Your task to perform on an android device: open app "Viber Messenger" (install if not already installed) and go to login screen Image 0: 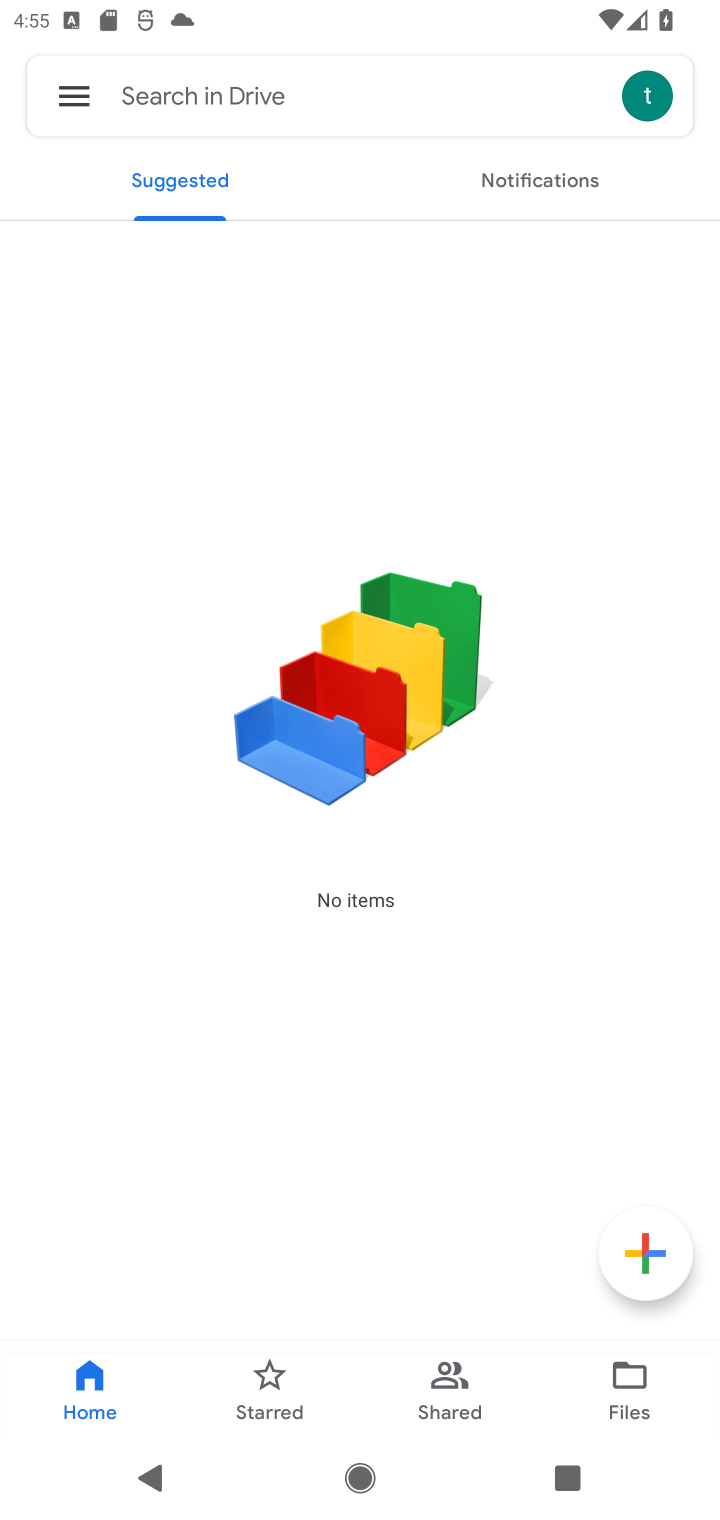
Step 0: press home button
Your task to perform on an android device: open app "Viber Messenger" (install if not already installed) and go to login screen Image 1: 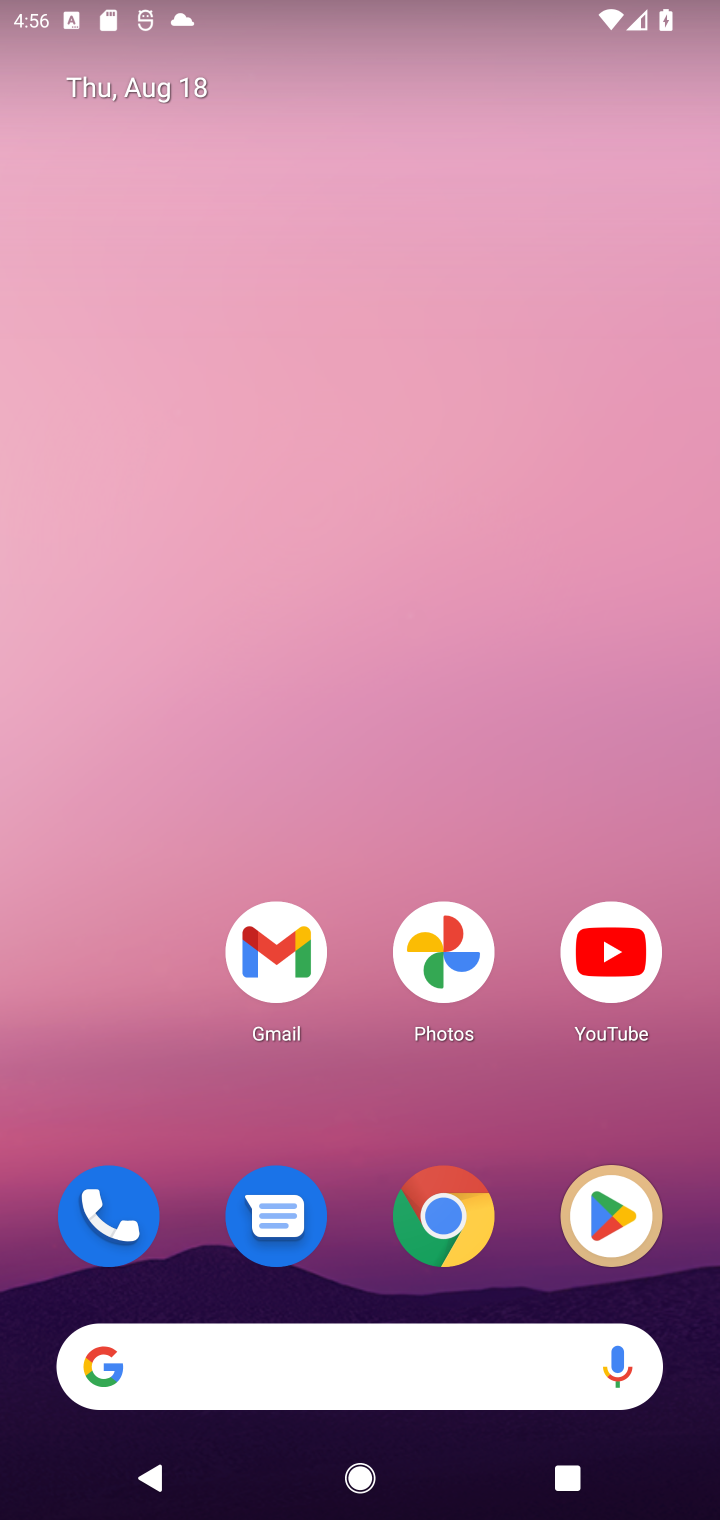
Step 1: click (581, 1201)
Your task to perform on an android device: open app "Viber Messenger" (install if not already installed) and go to login screen Image 2: 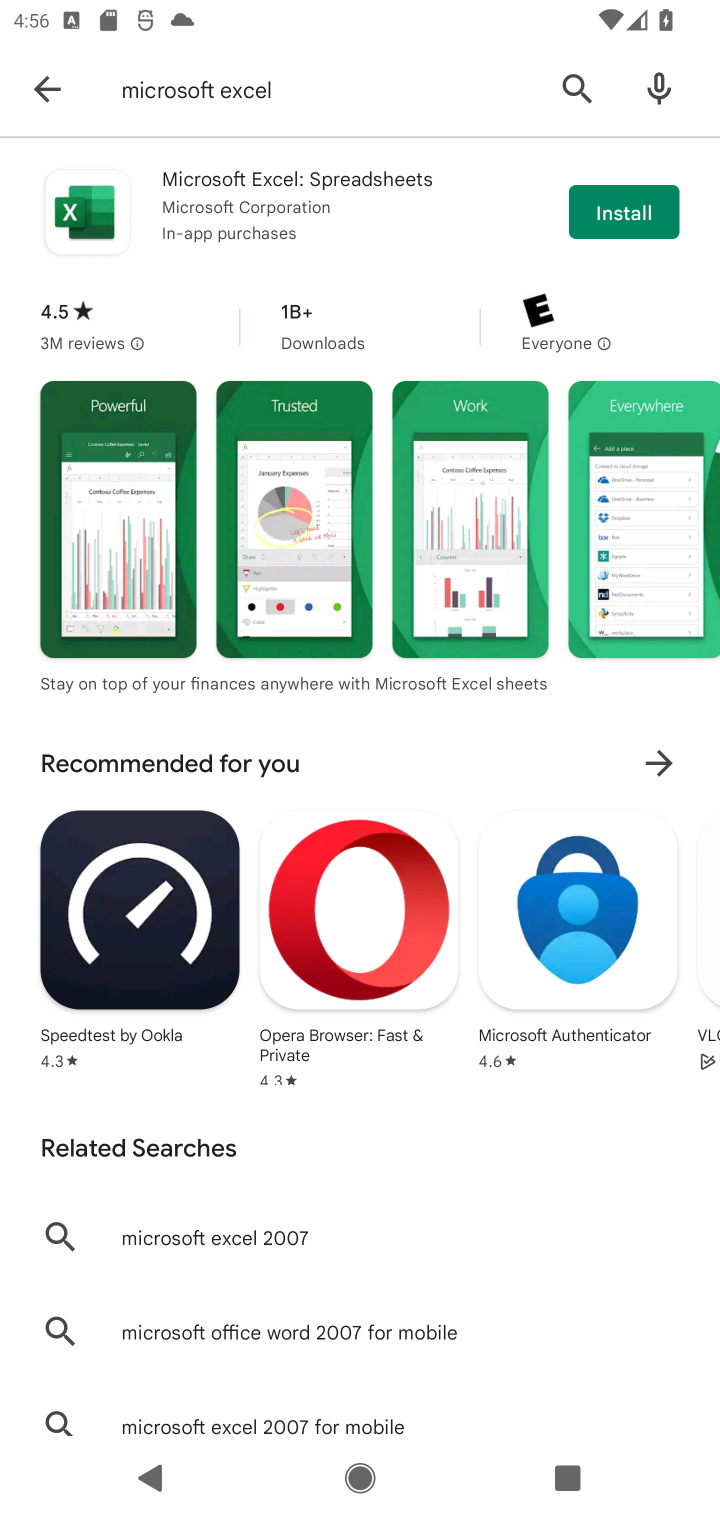
Step 2: click (570, 95)
Your task to perform on an android device: open app "Viber Messenger" (install if not already installed) and go to login screen Image 3: 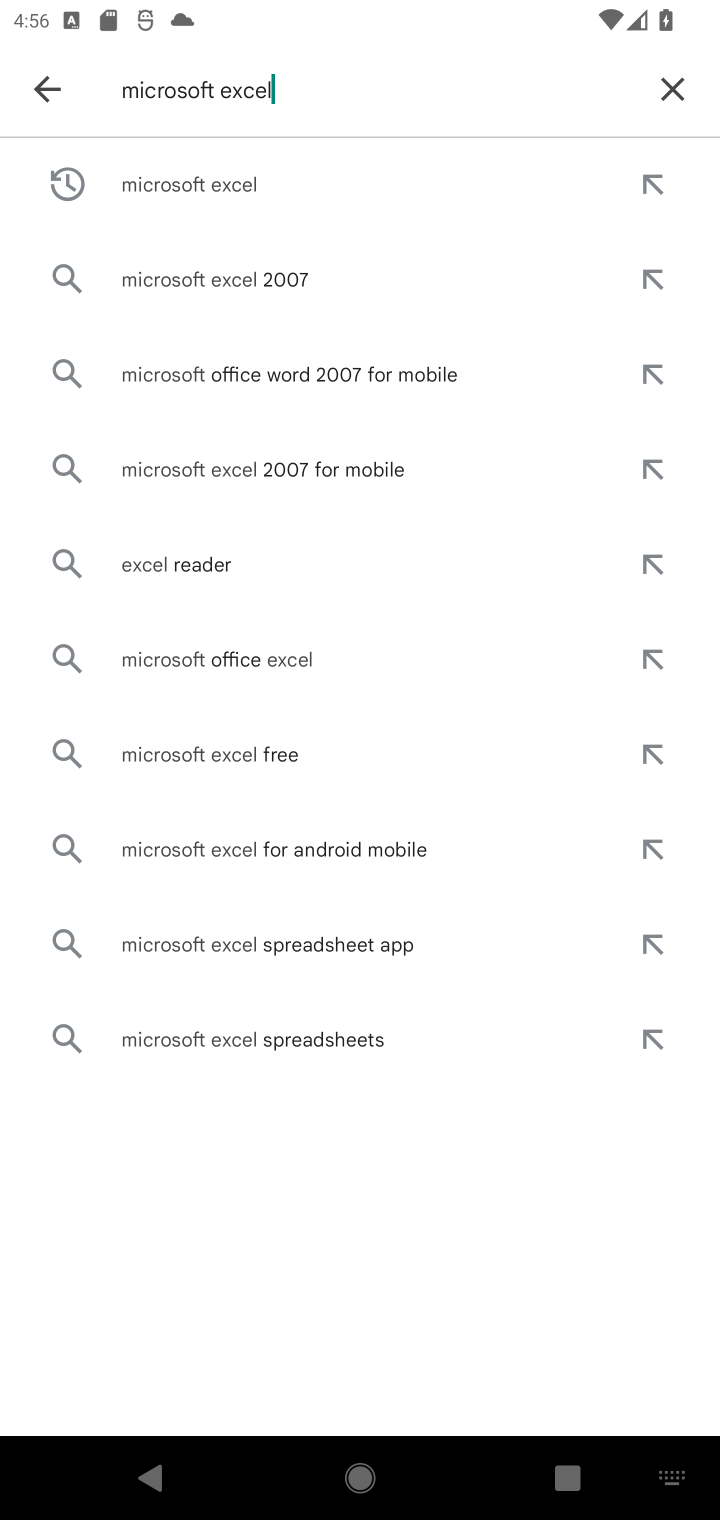
Step 3: click (675, 61)
Your task to perform on an android device: open app "Viber Messenger" (install if not already installed) and go to login screen Image 4: 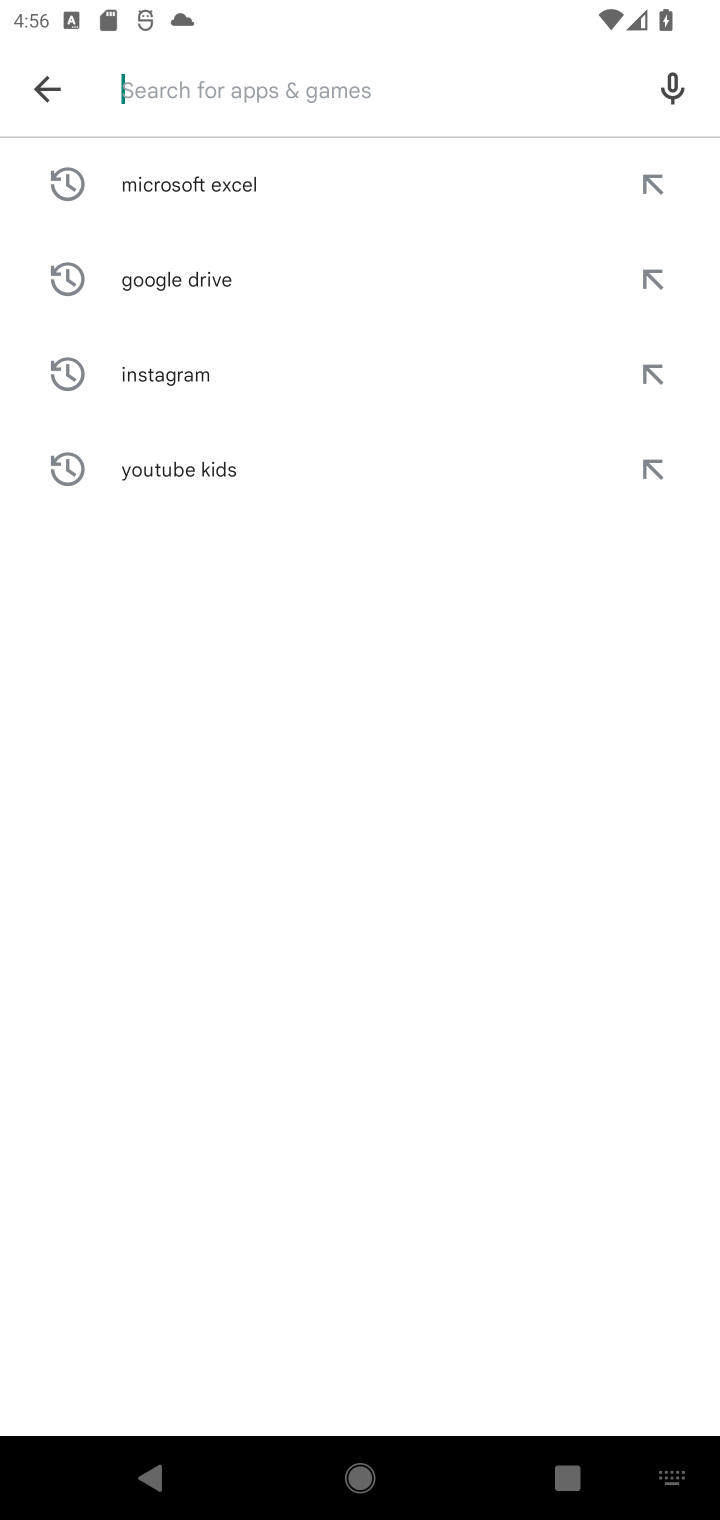
Step 4: type "Viber Messenger"
Your task to perform on an android device: open app "Viber Messenger" (install if not already installed) and go to login screen Image 5: 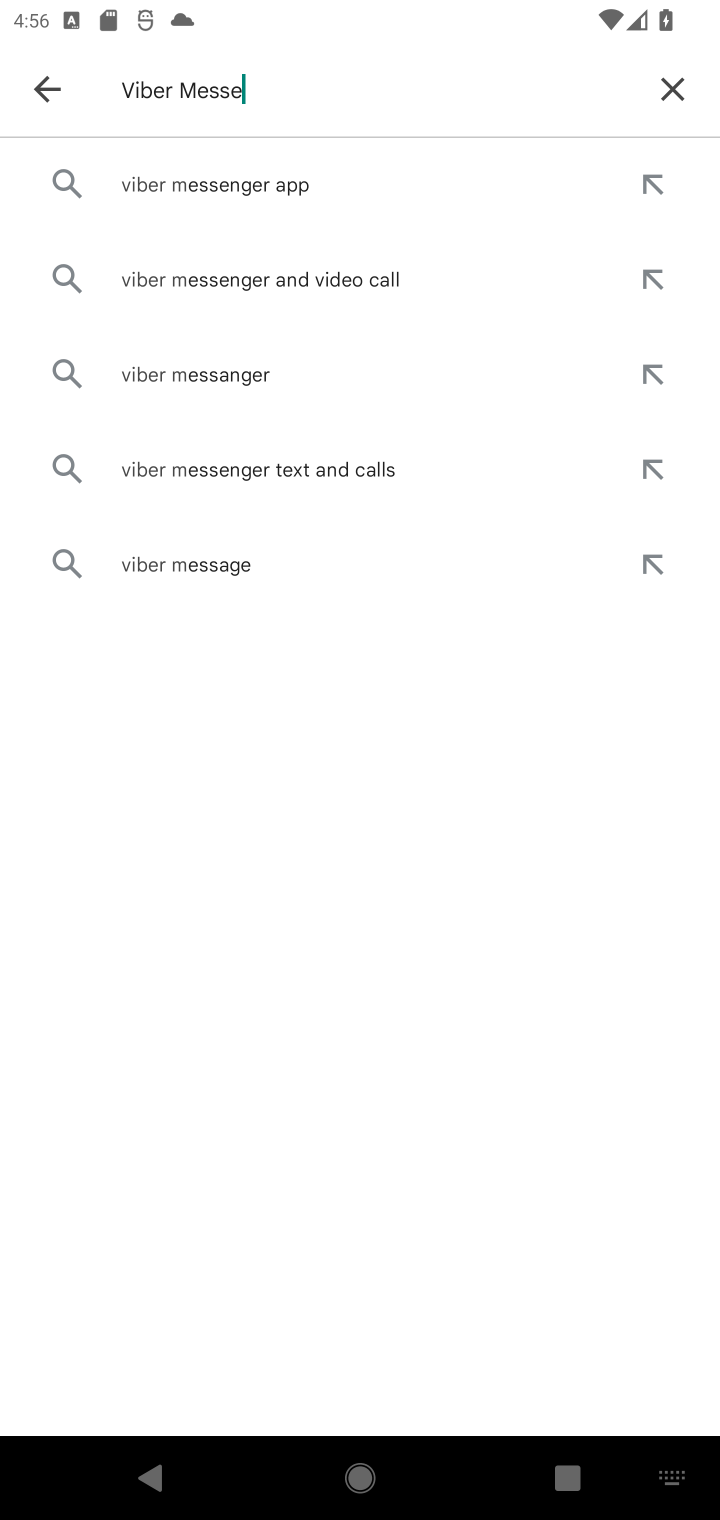
Step 5: type ""
Your task to perform on an android device: open app "Viber Messenger" (install if not already installed) and go to login screen Image 6: 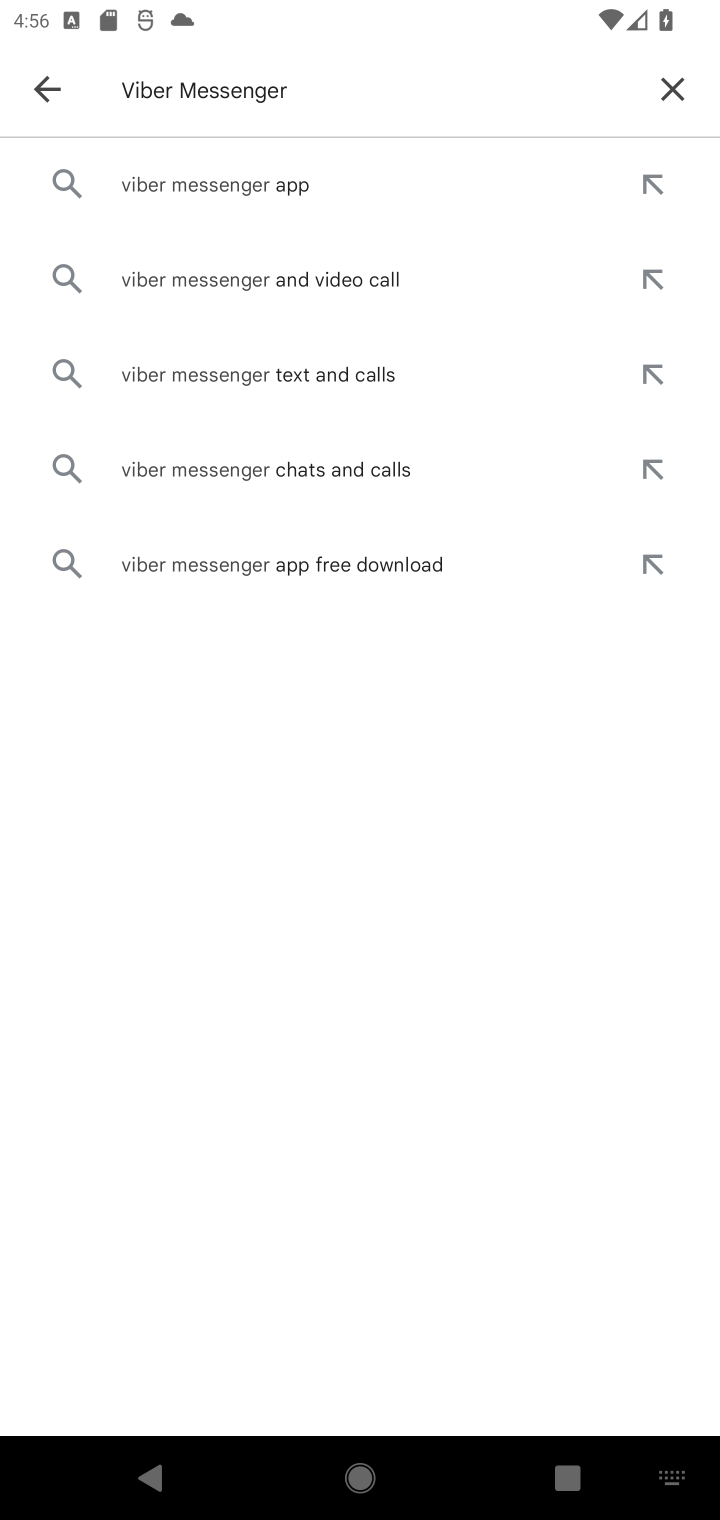
Step 6: click (325, 193)
Your task to perform on an android device: open app "Viber Messenger" (install if not already installed) and go to login screen Image 7: 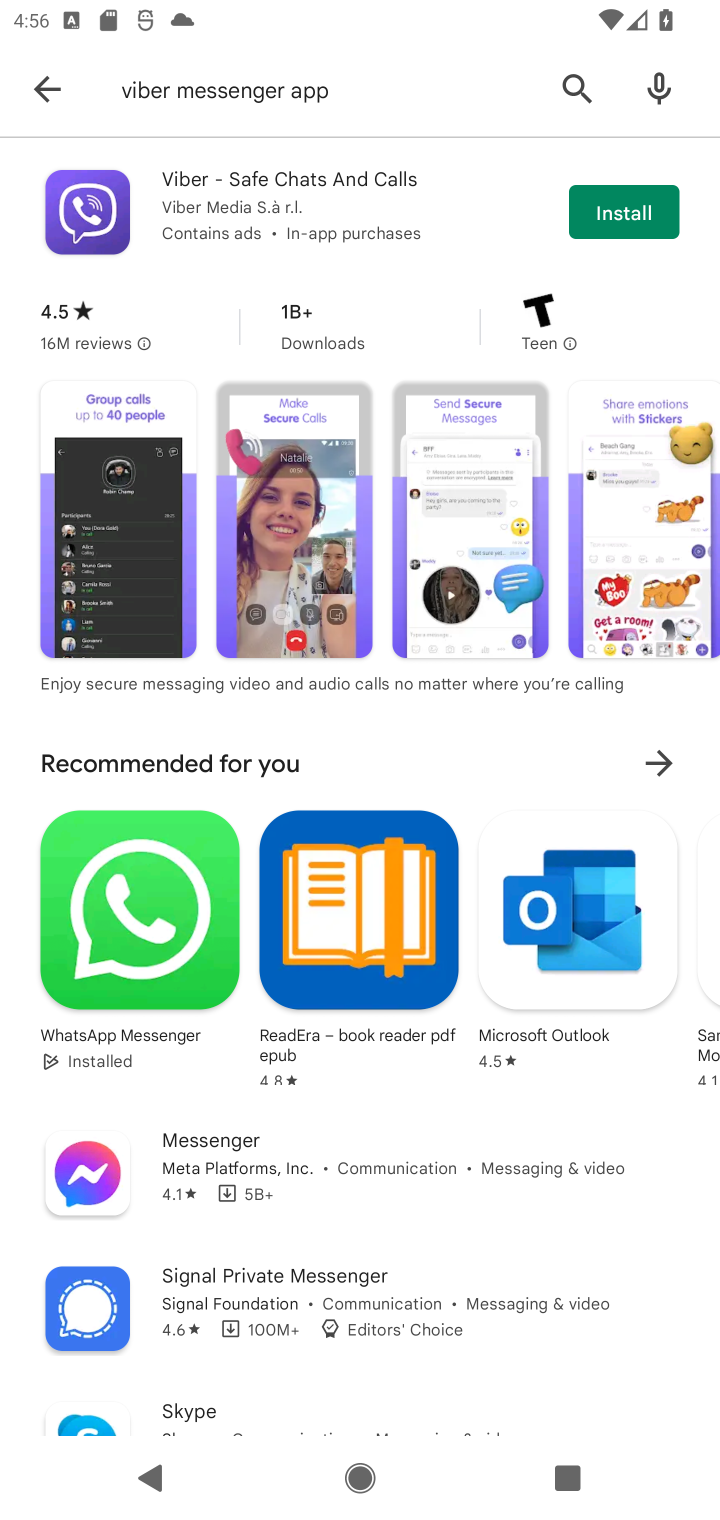
Step 7: click (634, 220)
Your task to perform on an android device: open app "Viber Messenger" (install if not already installed) and go to login screen Image 8: 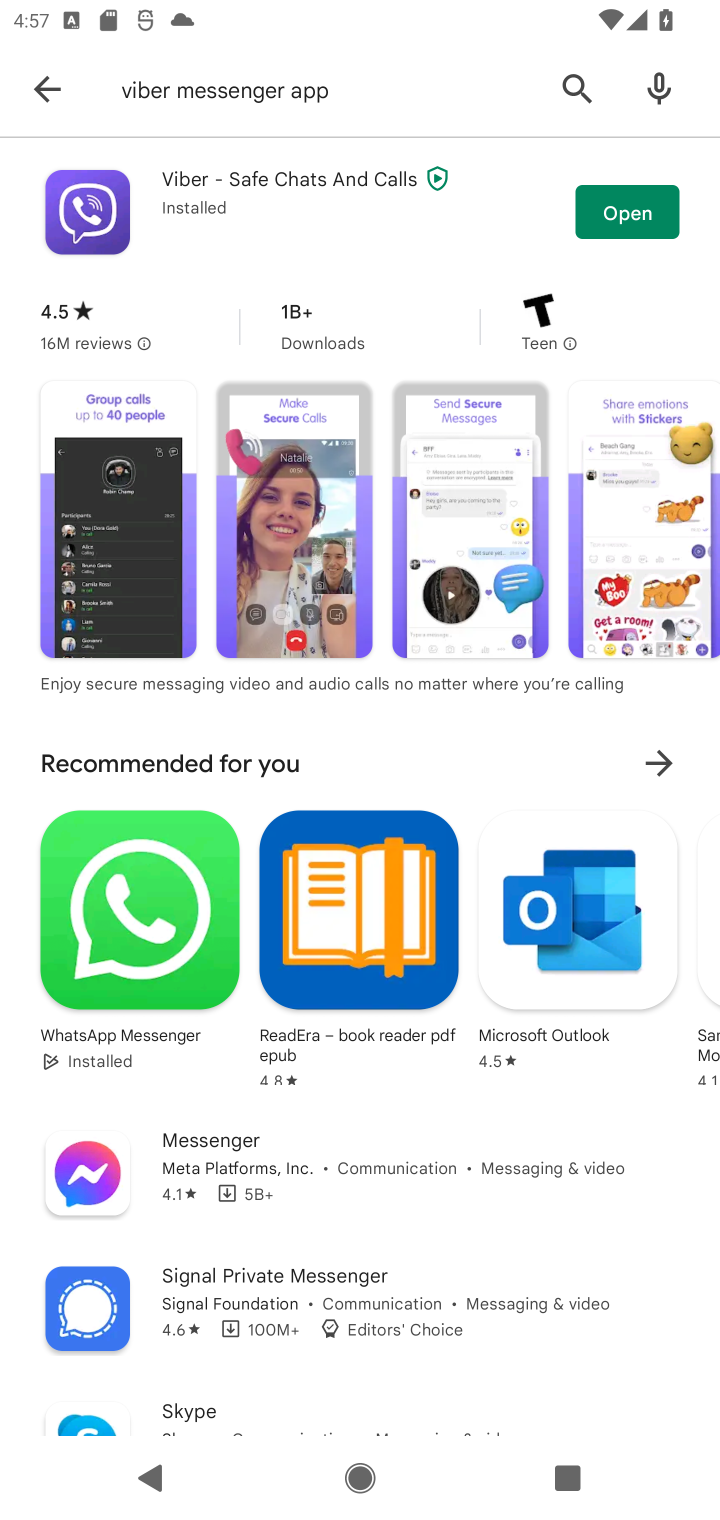
Step 8: click (634, 220)
Your task to perform on an android device: open app "Viber Messenger" (install if not already installed) and go to login screen Image 9: 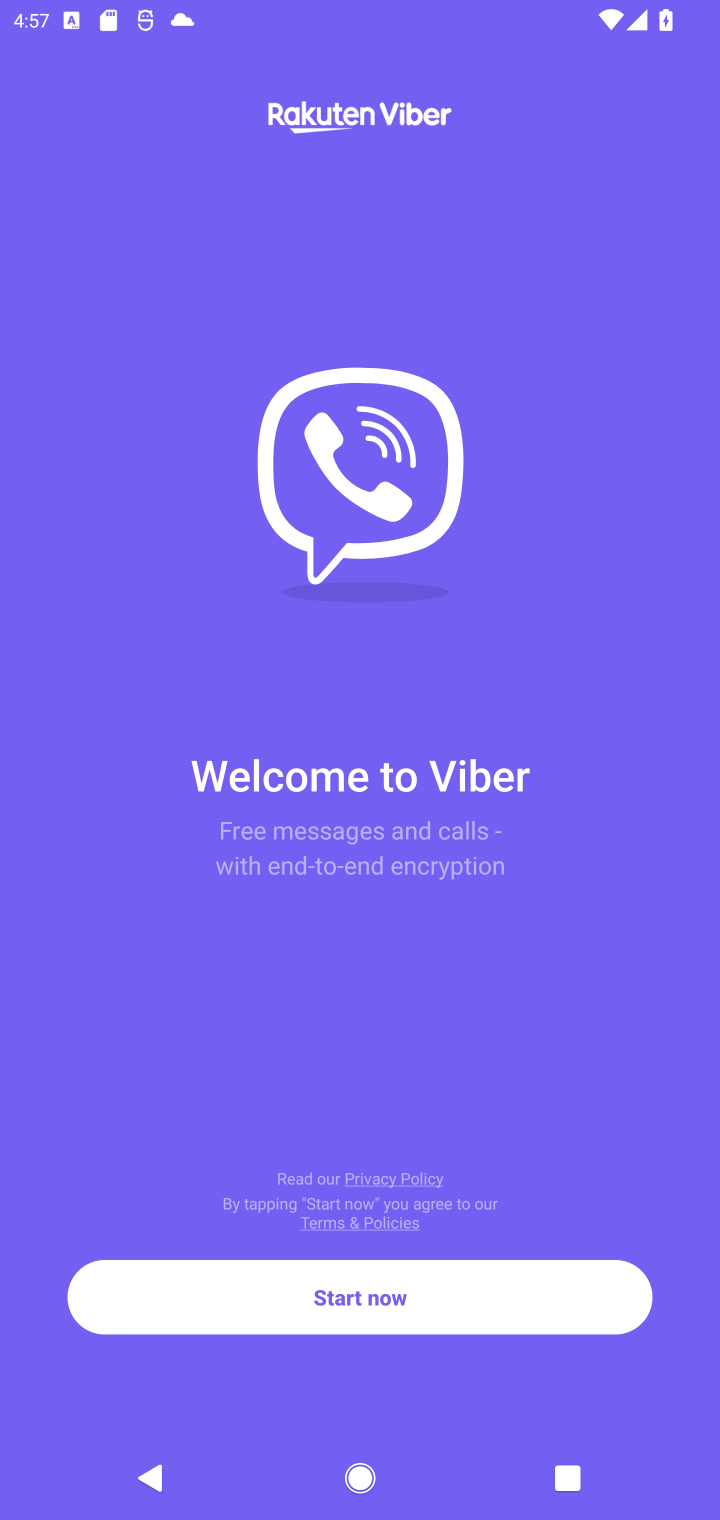
Step 9: task complete